Your task to perform on an android device: Show me popular games on the Play Store Image 0: 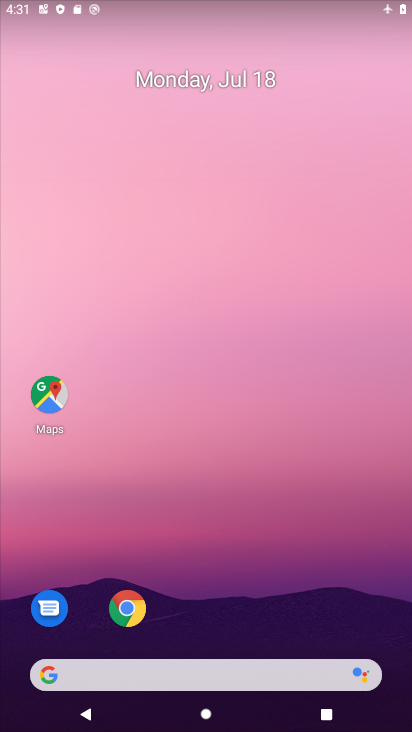
Step 0: drag from (293, 645) to (287, 63)
Your task to perform on an android device: Show me popular games on the Play Store Image 1: 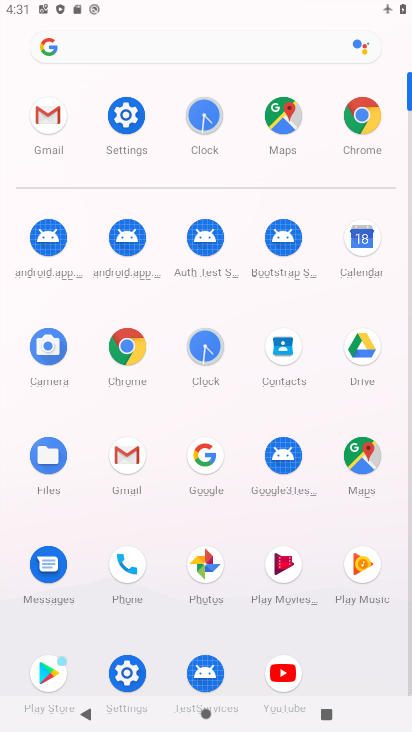
Step 1: click (58, 666)
Your task to perform on an android device: Show me popular games on the Play Store Image 2: 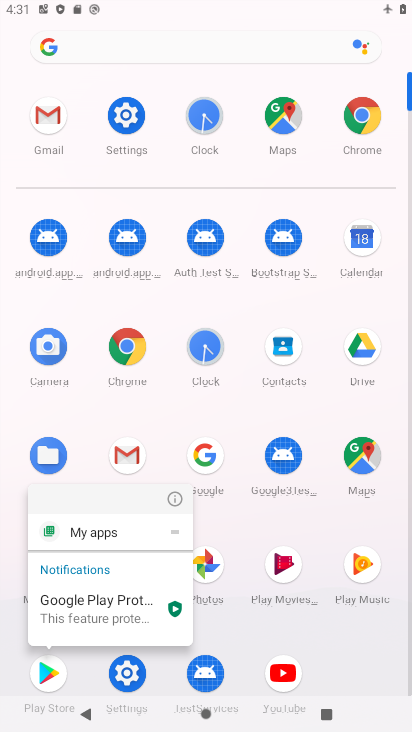
Step 2: click (38, 681)
Your task to perform on an android device: Show me popular games on the Play Store Image 3: 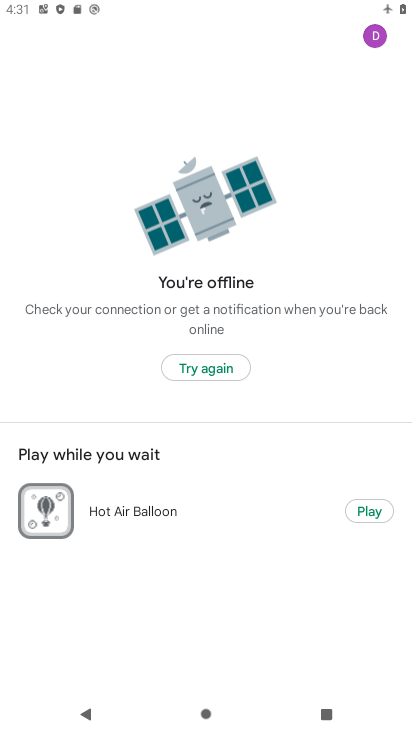
Step 3: task complete